Your task to perform on an android device: delete a single message in the gmail app Image 0: 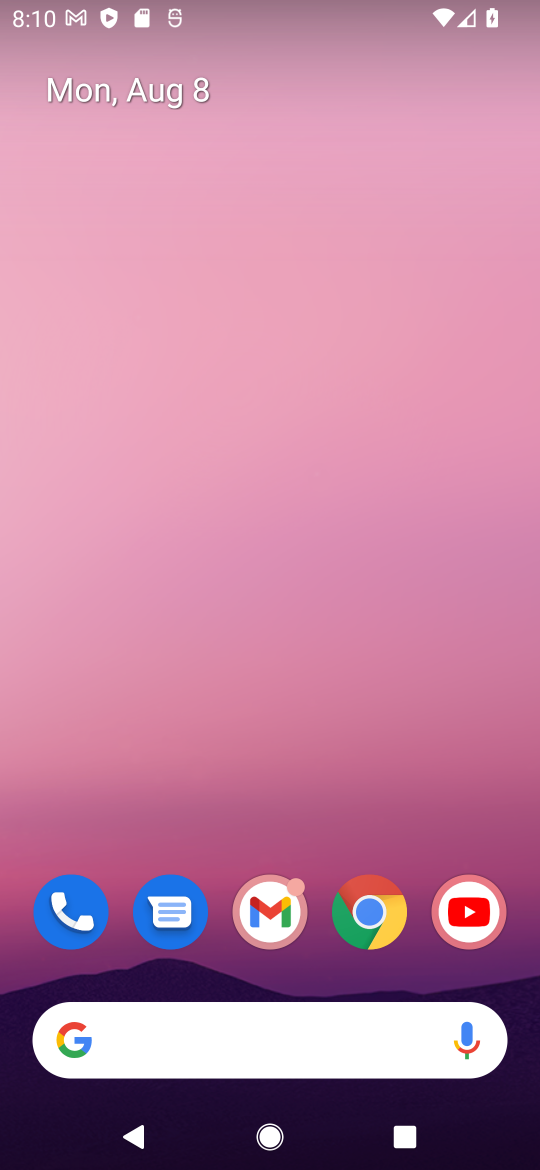
Step 0: drag from (438, 986) to (295, 23)
Your task to perform on an android device: delete a single message in the gmail app Image 1: 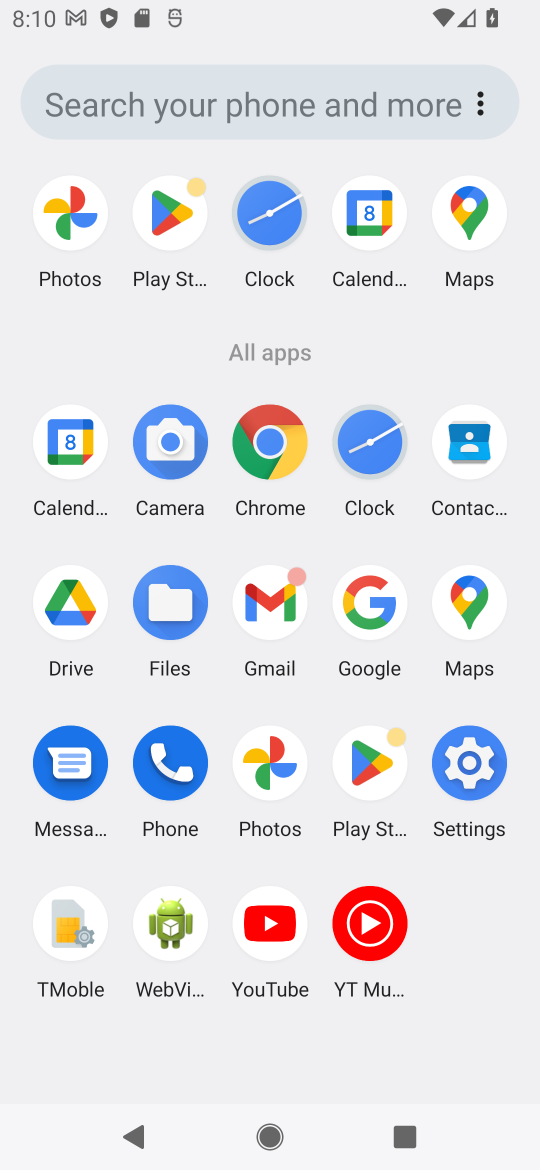
Step 1: click (278, 608)
Your task to perform on an android device: delete a single message in the gmail app Image 2: 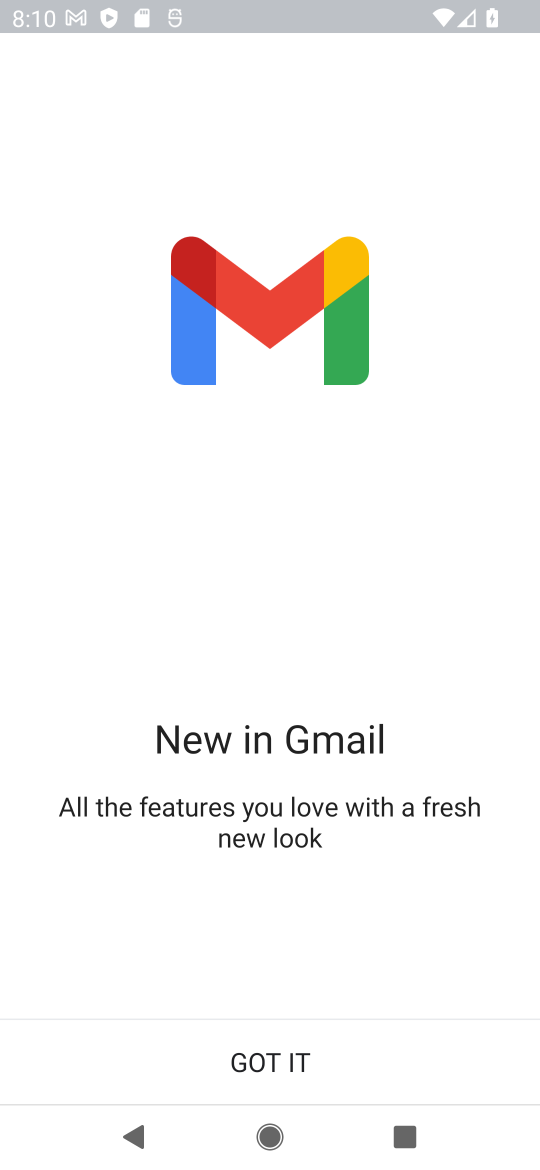
Step 2: click (262, 1052)
Your task to perform on an android device: delete a single message in the gmail app Image 3: 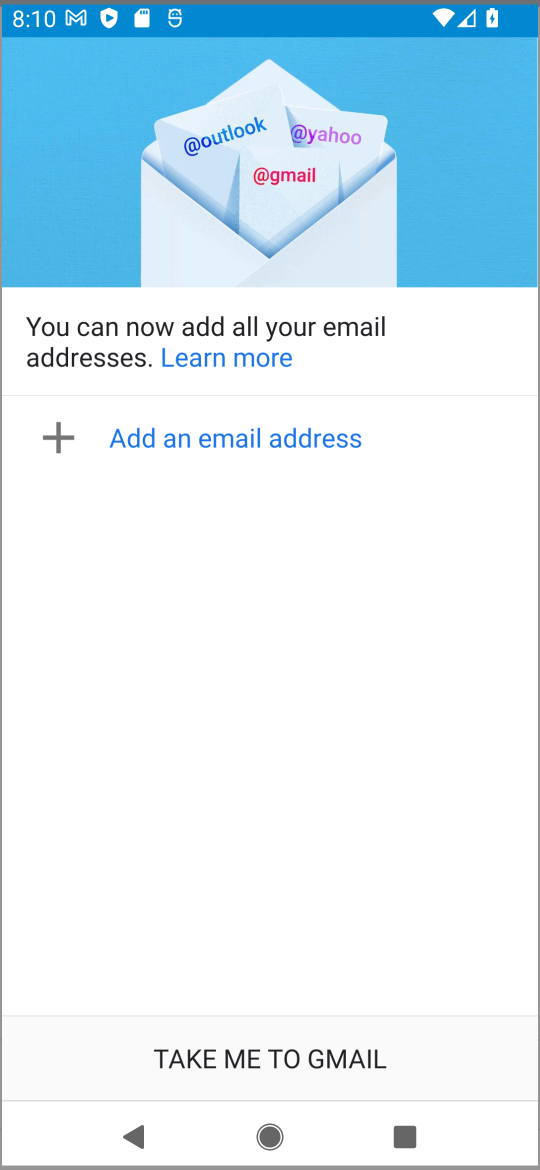
Step 3: click (262, 1052)
Your task to perform on an android device: delete a single message in the gmail app Image 4: 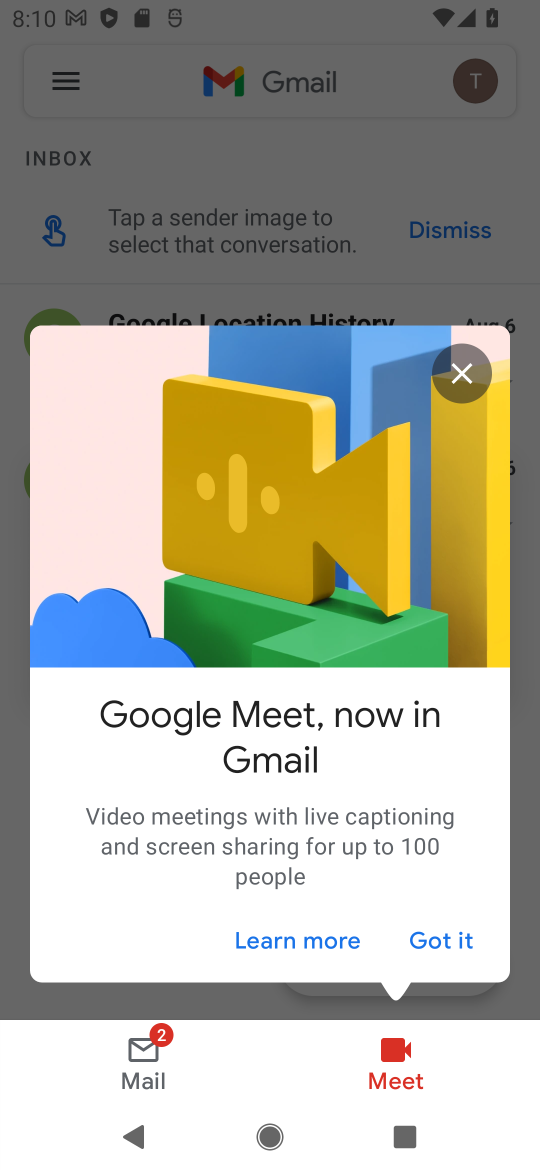
Step 4: click (460, 638)
Your task to perform on an android device: delete a single message in the gmail app Image 5: 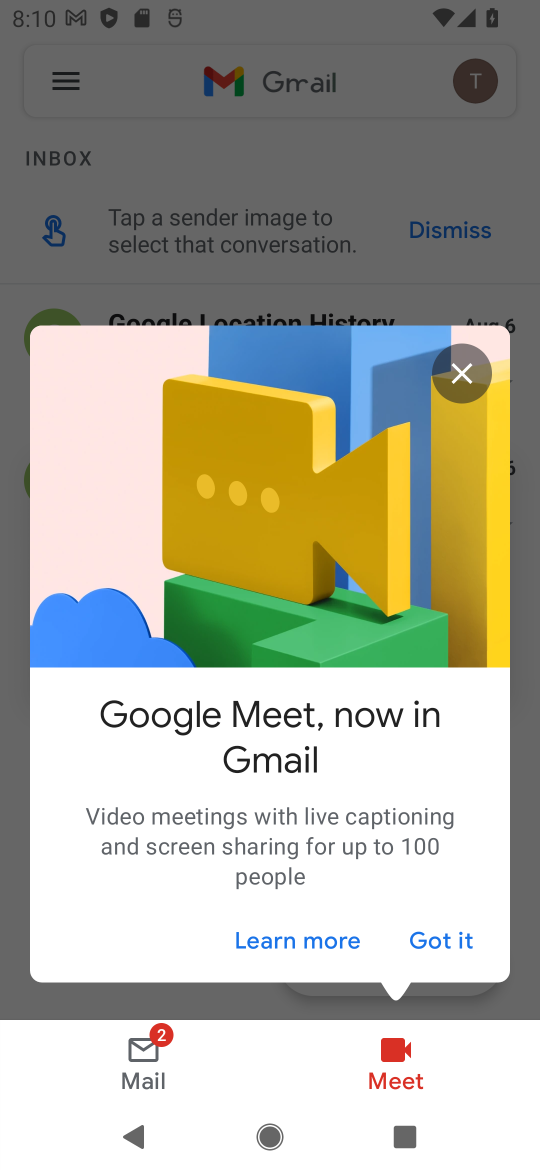
Step 5: click (439, 933)
Your task to perform on an android device: delete a single message in the gmail app Image 6: 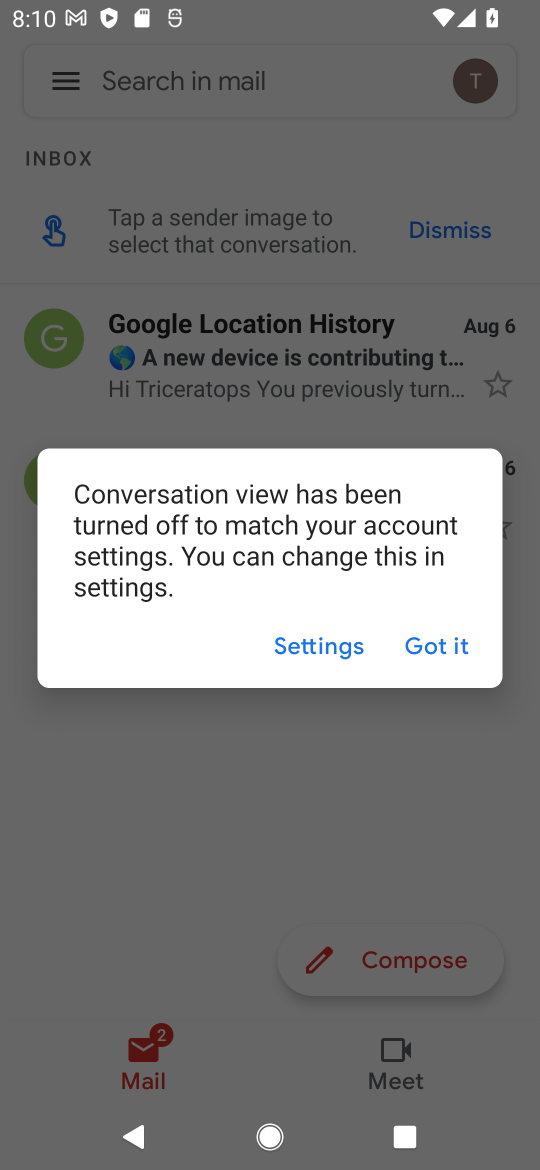
Step 6: click (413, 651)
Your task to perform on an android device: delete a single message in the gmail app Image 7: 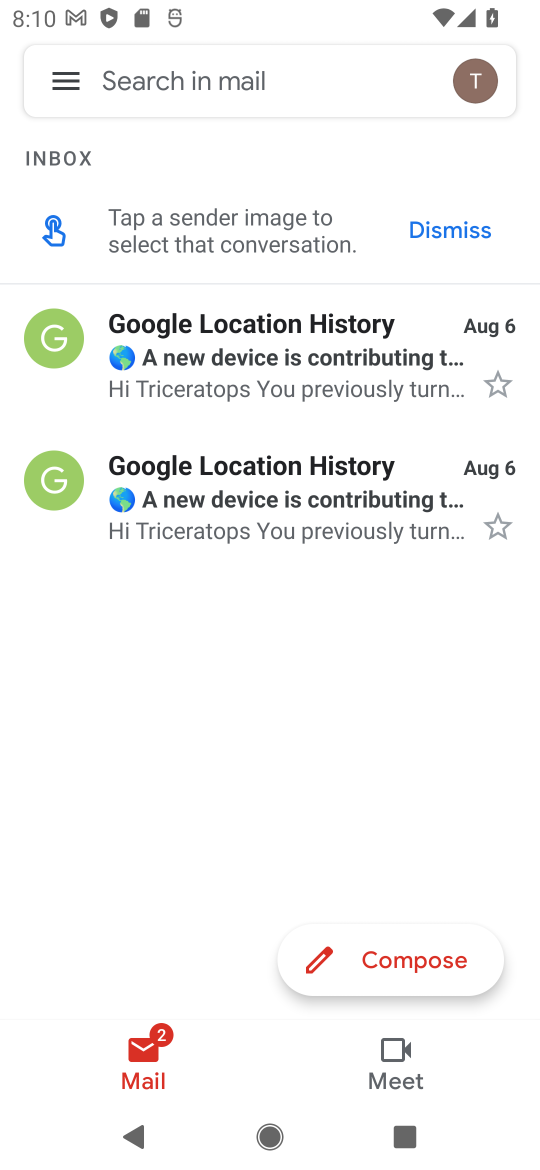
Step 7: click (255, 361)
Your task to perform on an android device: delete a single message in the gmail app Image 8: 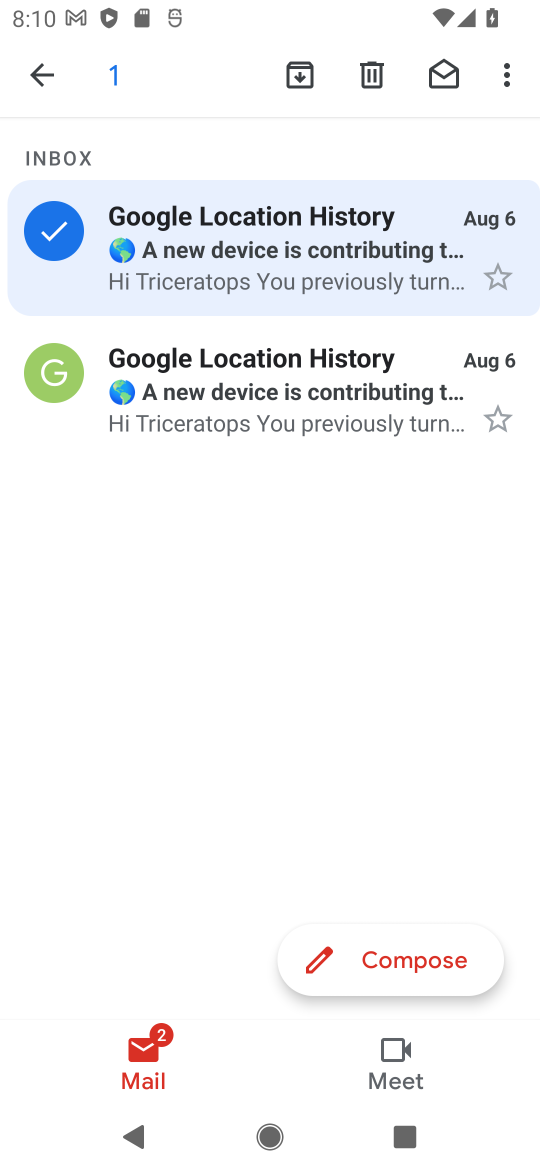
Step 8: click (380, 79)
Your task to perform on an android device: delete a single message in the gmail app Image 9: 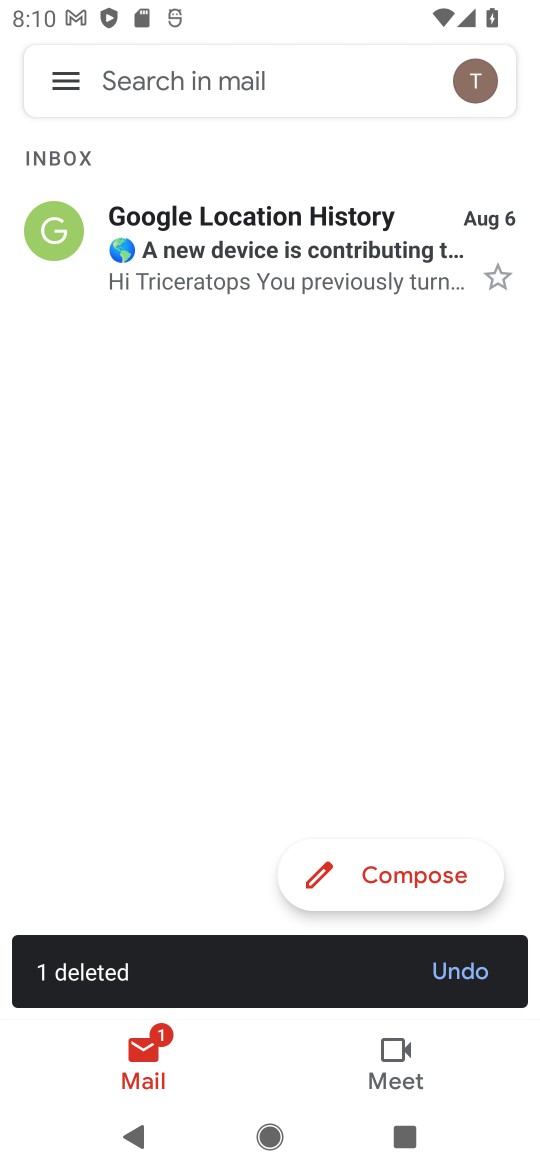
Step 9: task complete